Your task to perform on an android device: toggle notifications settings in the gmail app Image 0: 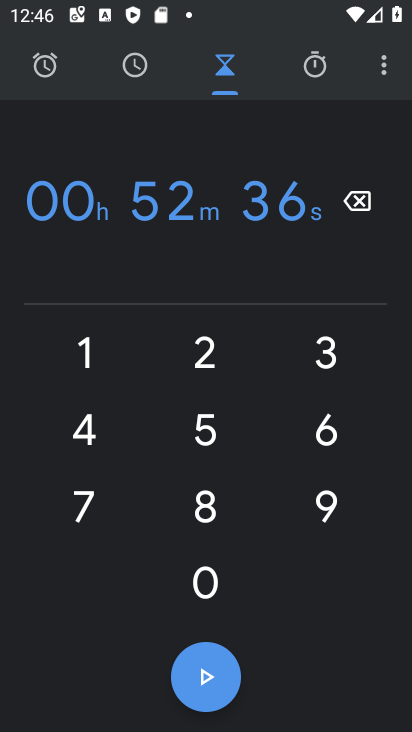
Step 0: press home button
Your task to perform on an android device: toggle notifications settings in the gmail app Image 1: 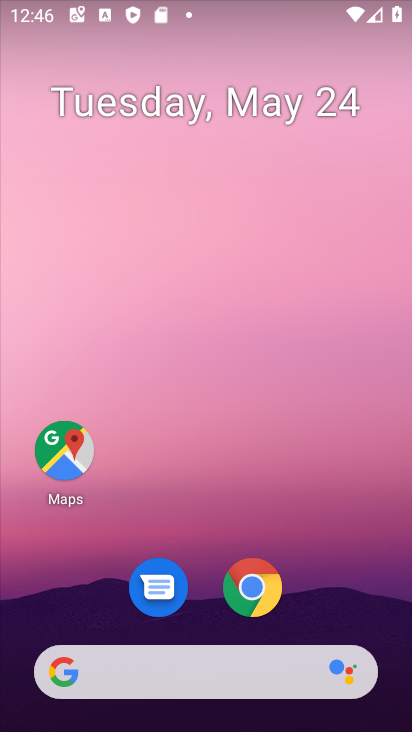
Step 1: drag from (147, 681) to (262, 177)
Your task to perform on an android device: toggle notifications settings in the gmail app Image 2: 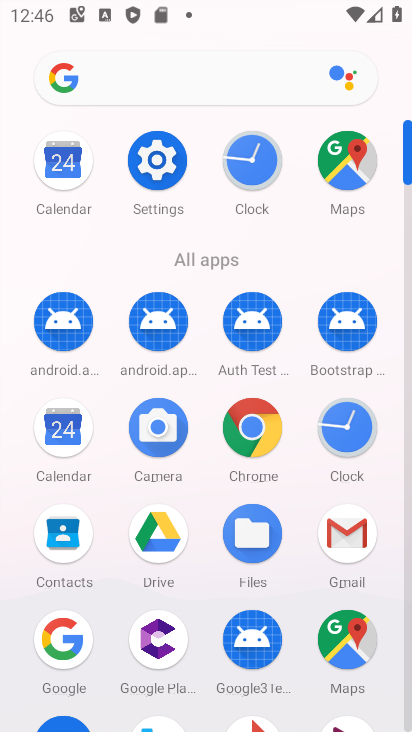
Step 2: click (334, 521)
Your task to perform on an android device: toggle notifications settings in the gmail app Image 3: 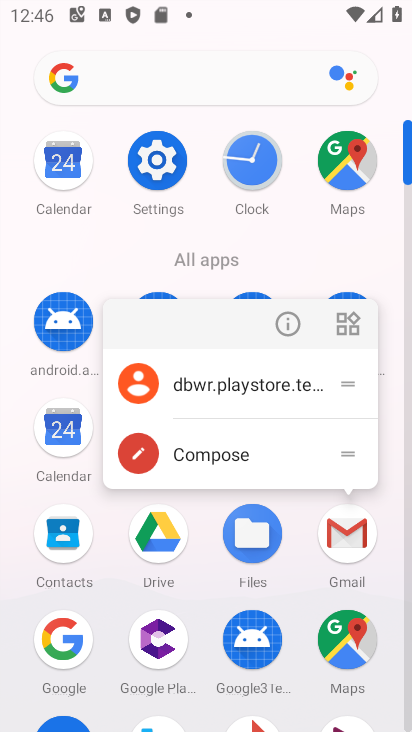
Step 3: click (277, 321)
Your task to perform on an android device: toggle notifications settings in the gmail app Image 4: 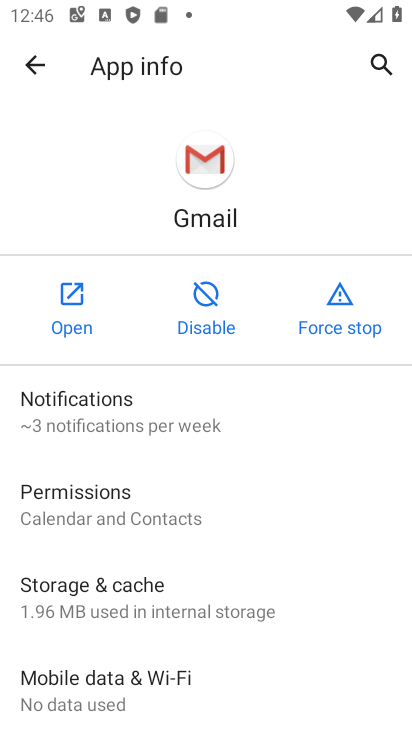
Step 4: click (163, 408)
Your task to perform on an android device: toggle notifications settings in the gmail app Image 5: 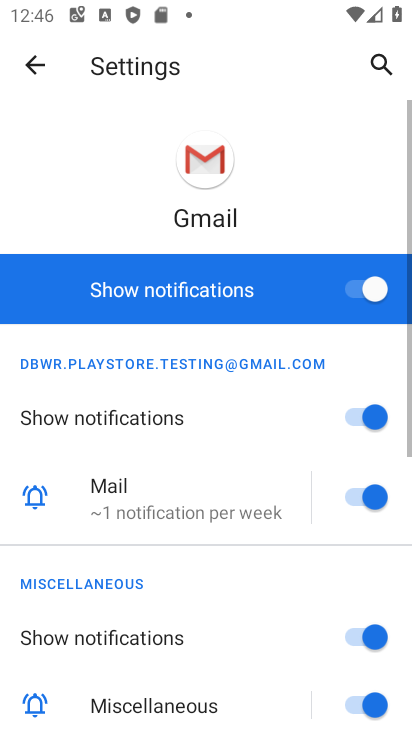
Step 5: click (375, 295)
Your task to perform on an android device: toggle notifications settings in the gmail app Image 6: 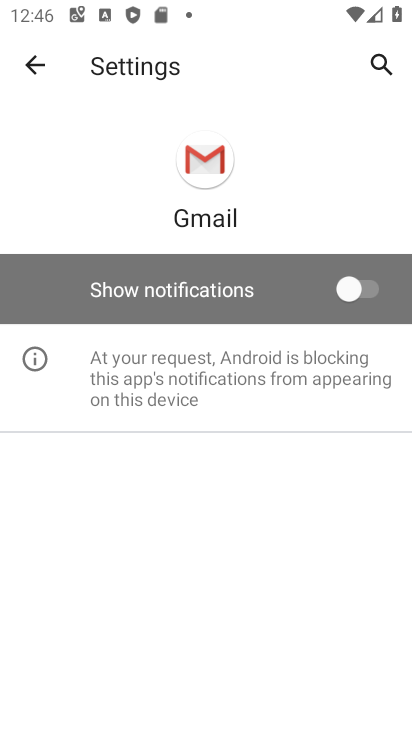
Step 6: task complete